Your task to perform on an android device: turn on javascript in the chrome app Image 0: 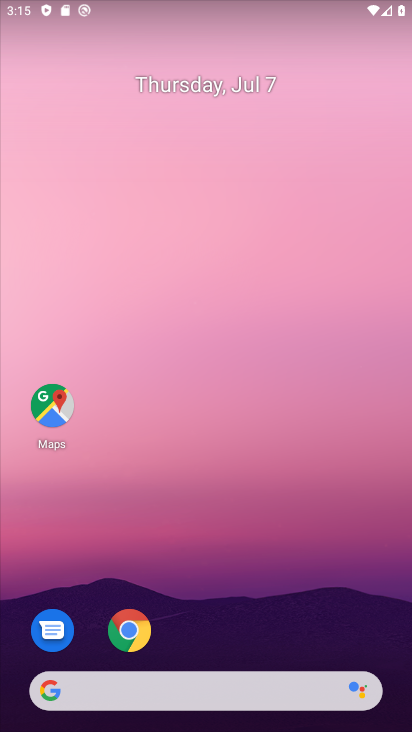
Step 0: drag from (372, 635) to (362, 71)
Your task to perform on an android device: turn on javascript in the chrome app Image 1: 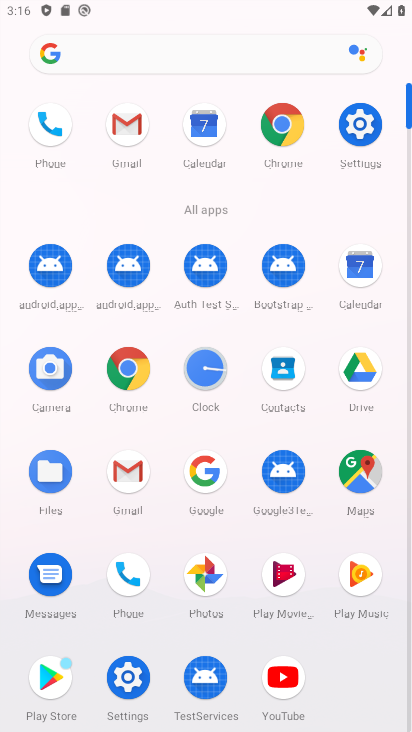
Step 1: click (136, 376)
Your task to perform on an android device: turn on javascript in the chrome app Image 2: 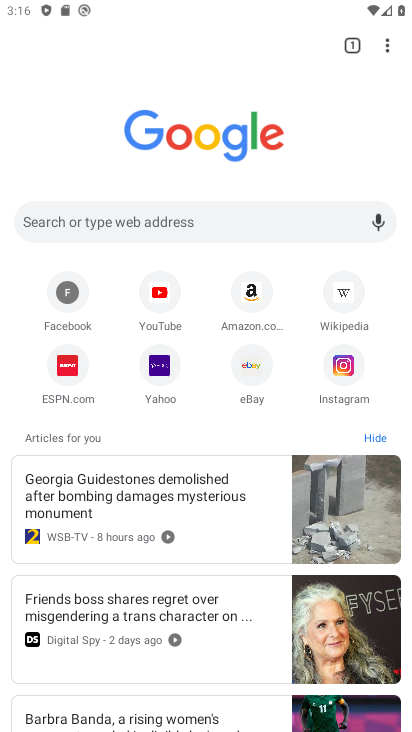
Step 2: click (383, 49)
Your task to perform on an android device: turn on javascript in the chrome app Image 3: 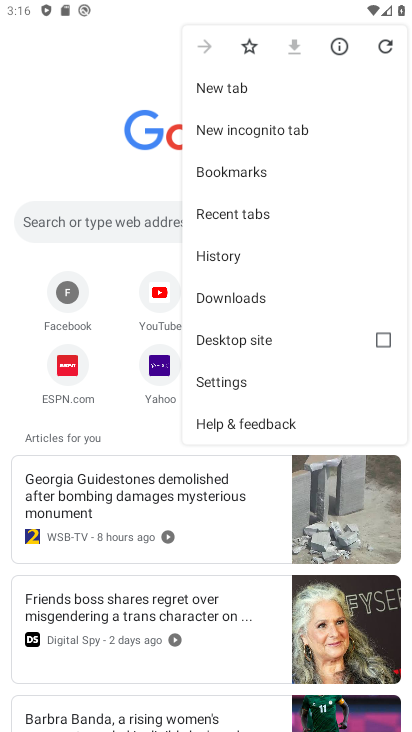
Step 3: click (261, 383)
Your task to perform on an android device: turn on javascript in the chrome app Image 4: 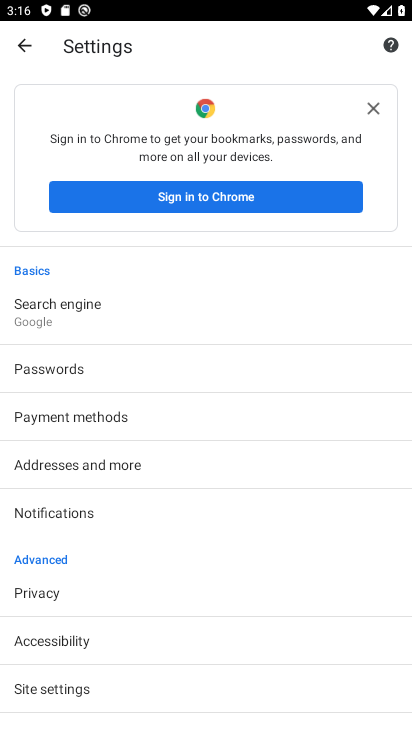
Step 4: drag from (287, 393) to (286, 234)
Your task to perform on an android device: turn on javascript in the chrome app Image 5: 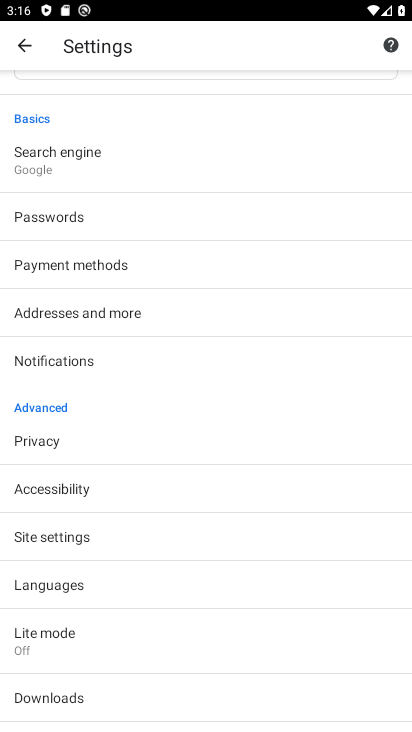
Step 5: drag from (288, 409) to (291, 265)
Your task to perform on an android device: turn on javascript in the chrome app Image 6: 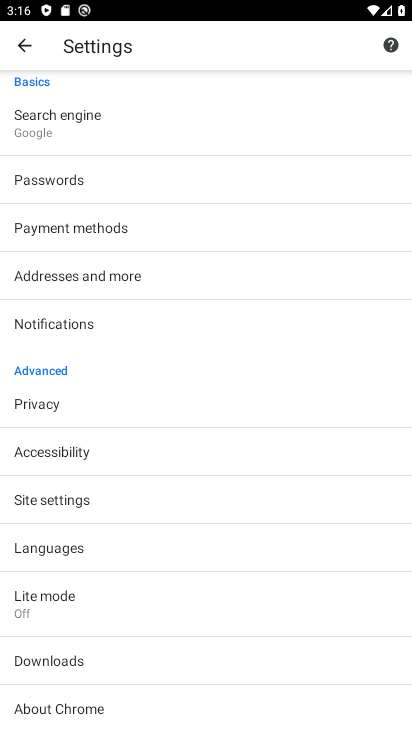
Step 6: click (262, 492)
Your task to perform on an android device: turn on javascript in the chrome app Image 7: 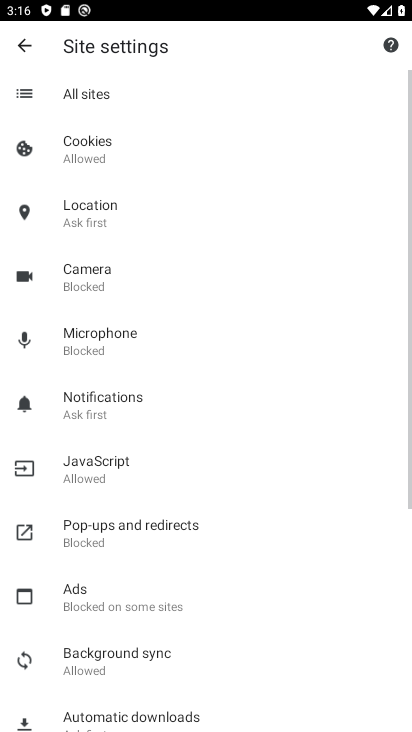
Step 7: drag from (277, 504) to (280, 379)
Your task to perform on an android device: turn on javascript in the chrome app Image 8: 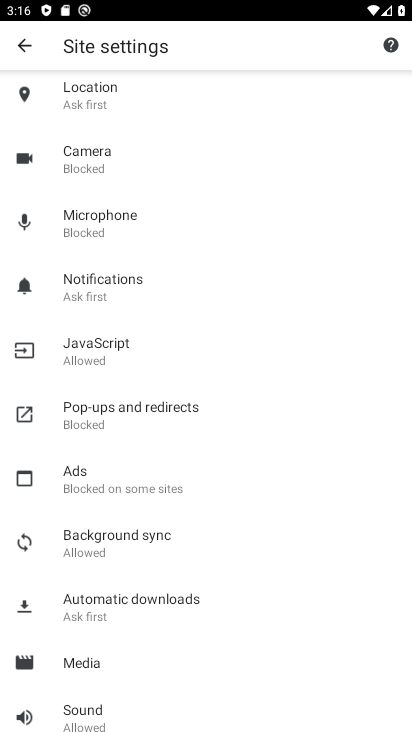
Step 8: drag from (292, 503) to (292, 391)
Your task to perform on an android device: turn on javascript in the chrome app Image 9: 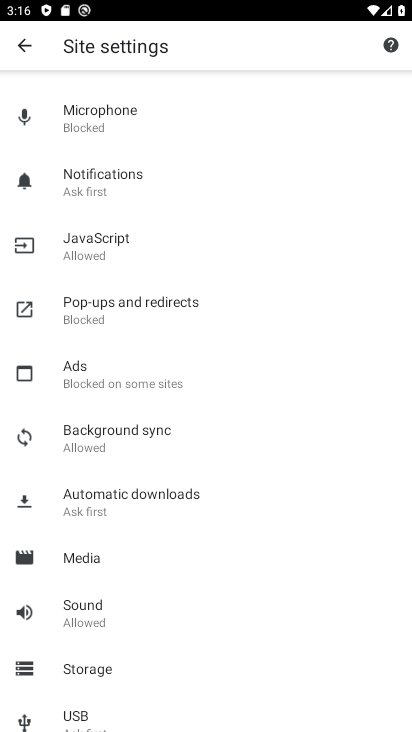
Step 9: click (209, 245)
Your task to perform on an android device: turn on javascript in the chrome app Image 10: 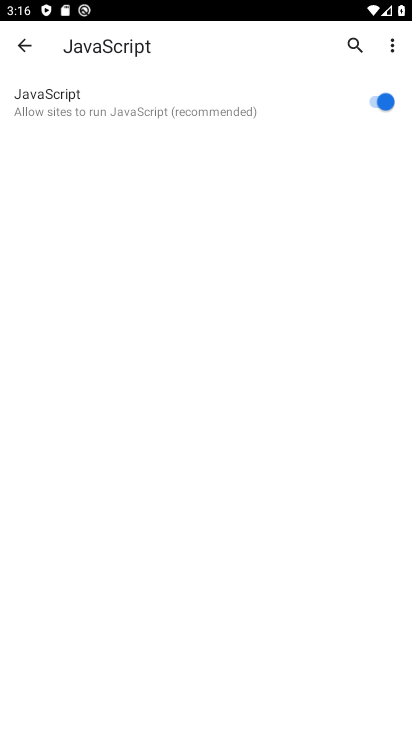
Step 10: task complete